Your task to perform on an android device: Open Google Chrome Image 0: 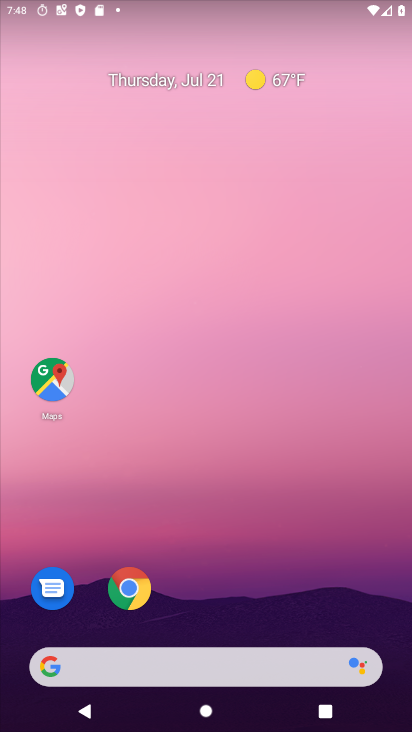
Step 0: click (136, 585)
Your task to perform on an android device: Open Google Chrome Image 1: 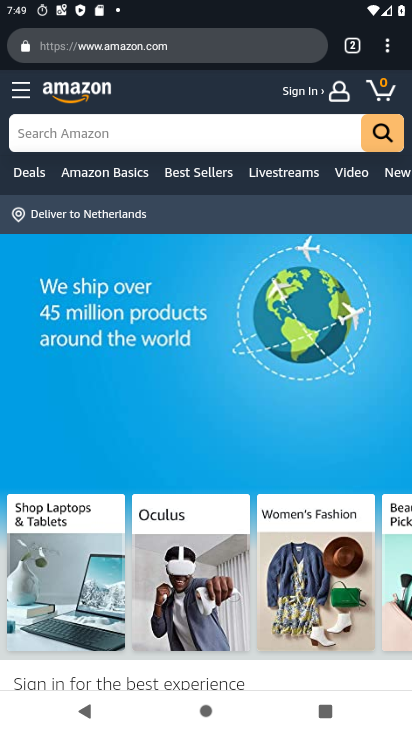
Step 1: task complete